Your task to perform on an android device: toggle javascript in the chrome app Image 0: 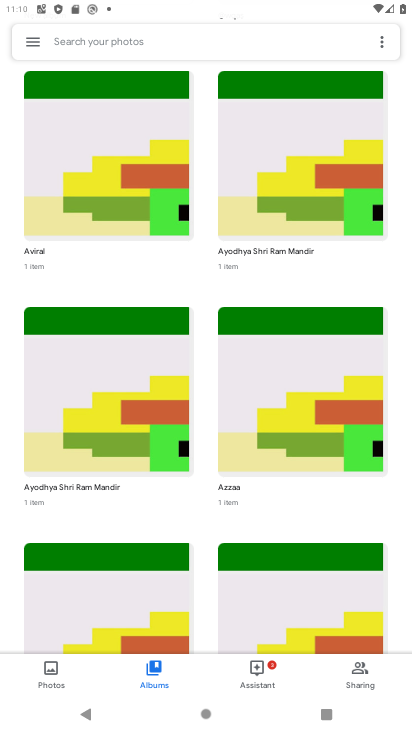
Step 0: press home button
Your task to perform on an android device: toggle javascript in the chrome app Image 1: 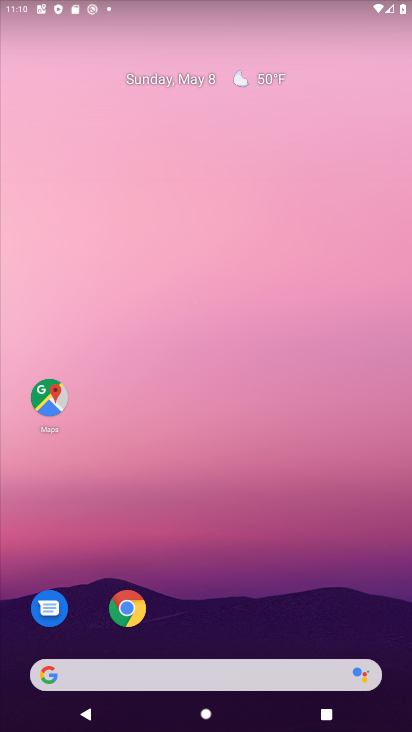
Step 1: drag from (256, 547) to (248, 115)
Your task to perform on an android device: toggle javascript in the chrome app Image 2: 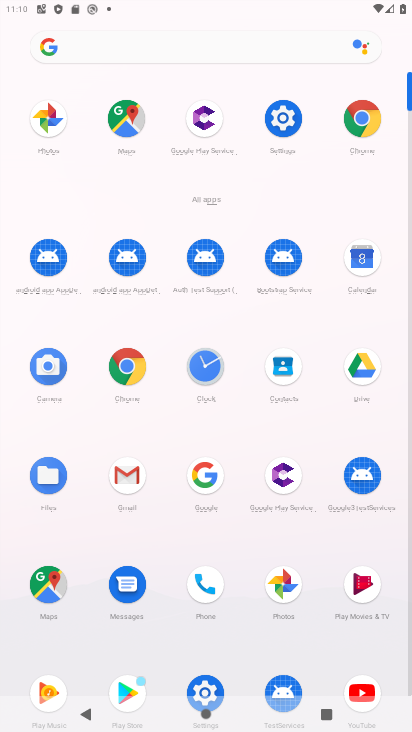
Step 2: click (371, 114)
Your task to perform on an android device: toggle javascript in the chrome app Image 3: 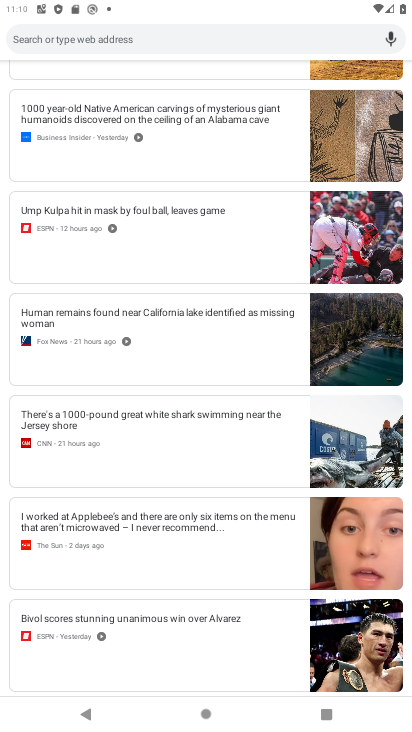
Step 3: drag from (192, 141) to (225, 549)
Your task to perform on an android device: toggle javascript in the chrome app Image 4: 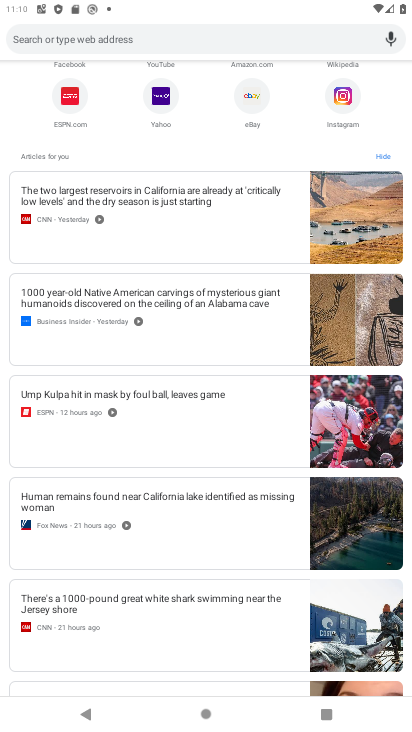
Step 4: drag from (160, 319) to (149, 607)
Your task to perform on an android device: toggle javascript in the chrome app Image 5: 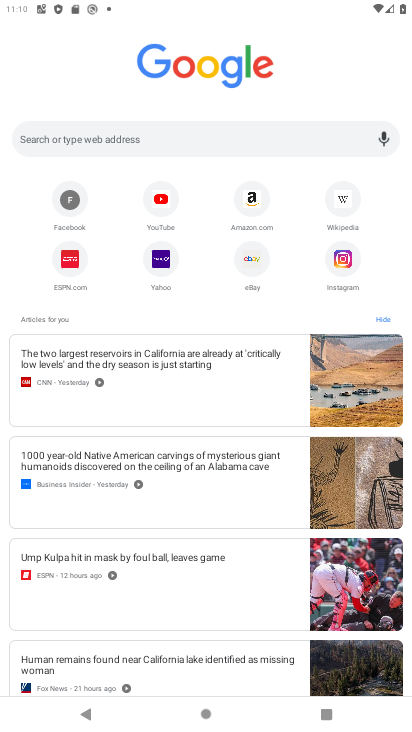
Step 5: drag from (187, 280) to (231, 697)
Your task to perform on an android device: toggle javascript in the chrome app Image 6: 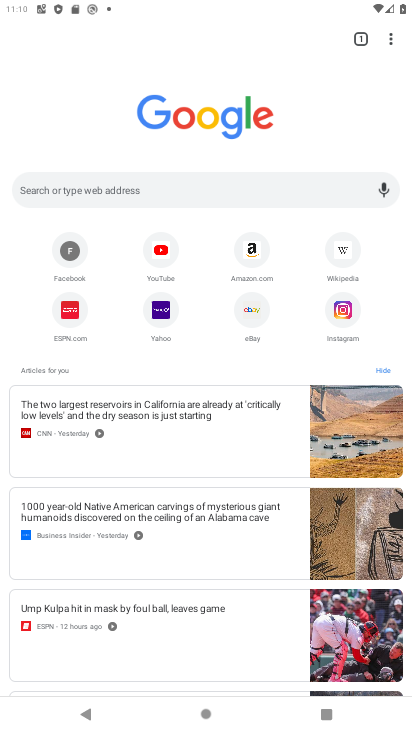
Step 6: drag from (393, 35) to (248, 338)
Your task to perform on an android device: toggle javascript in the chrome app Image 7: 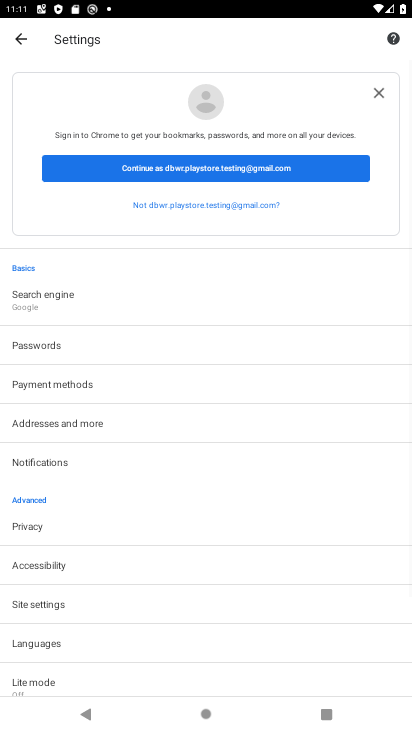
Step 7: drag from (115, 594) to (162, 267)
Your task to perform on an android device: toggle javascript in the chrome app Image 8: 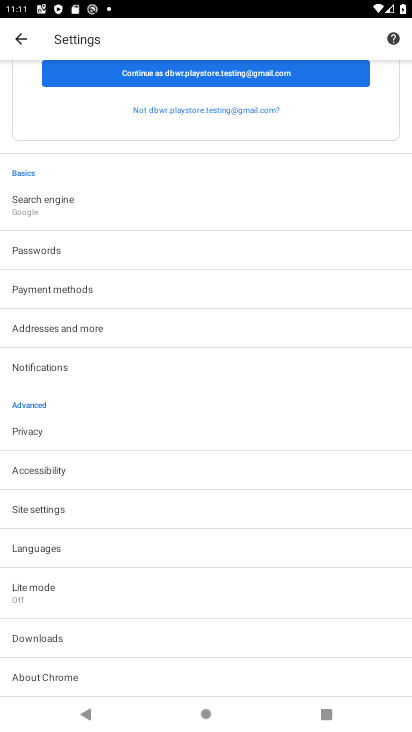
Step 8: drag from (120, 587) to (183, 301)
Your task to perform on an android device: toggle javascript in the chrome app Image 9: 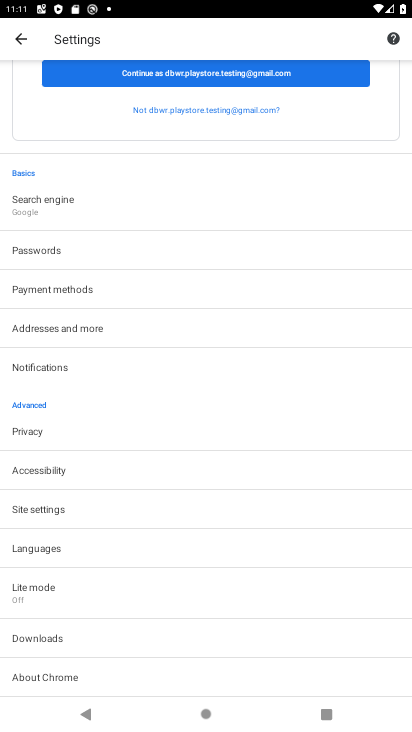
Step 9: drag from (118, 639) to (150, 309)
Your task to perform on an android device: toggle javascript in the chrome app Image 10: 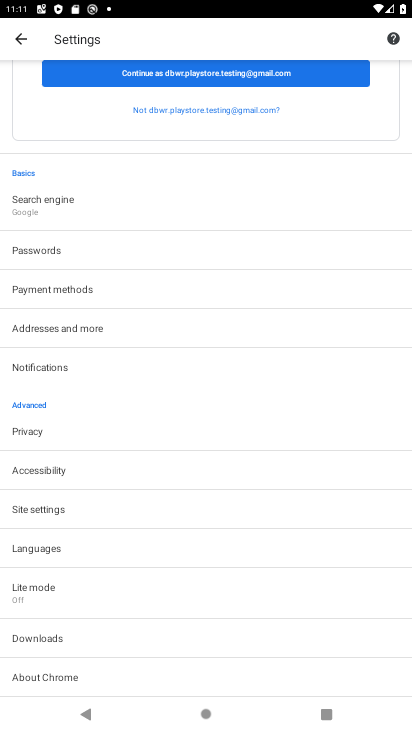
Step 10: click (69, 514)
Your task to perform on an android device: toggle javascript in the chrome app Image 11: 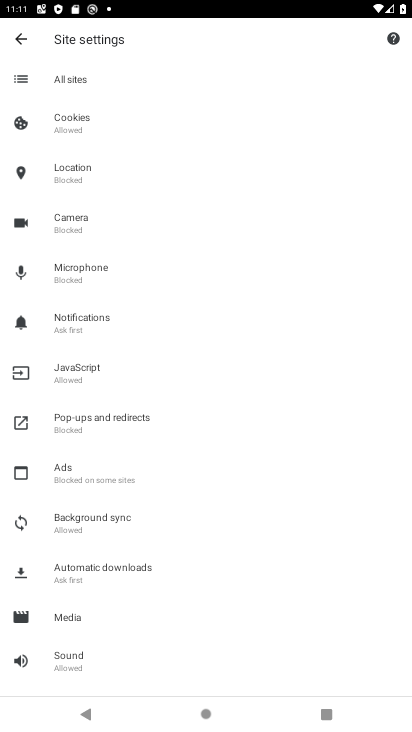
Step 11: click (93, 366)
Your task to perform on an android device: toggle javascript in the chrome app Image 12: 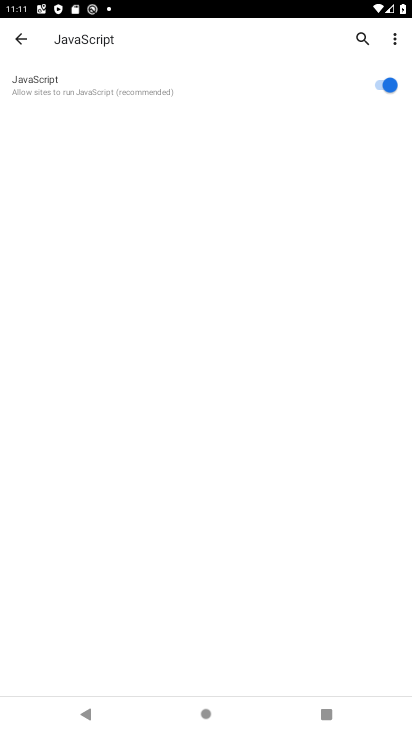
Step 12: click (386, 89)
Your task to perform on an android device: toggle javascript in the chrome app Image 13: 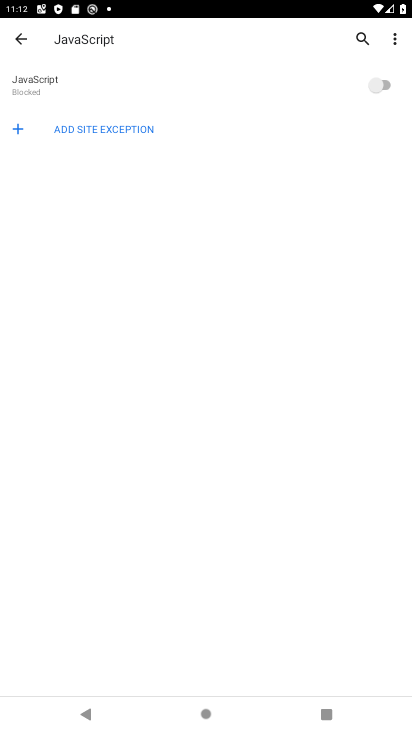
Step 13: task complete